Your task to perform on an android device: turn on airplane mode Image 0: 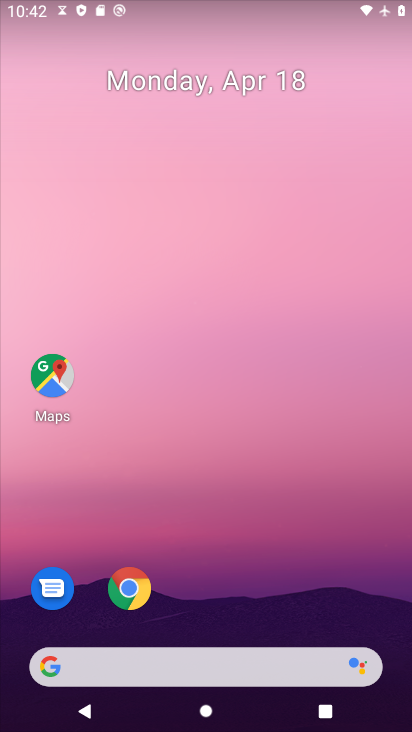
Step 0: drag from (318, 469) to (257, 27)
Your task to perform on an android device: turn on airplane mode Image 1: 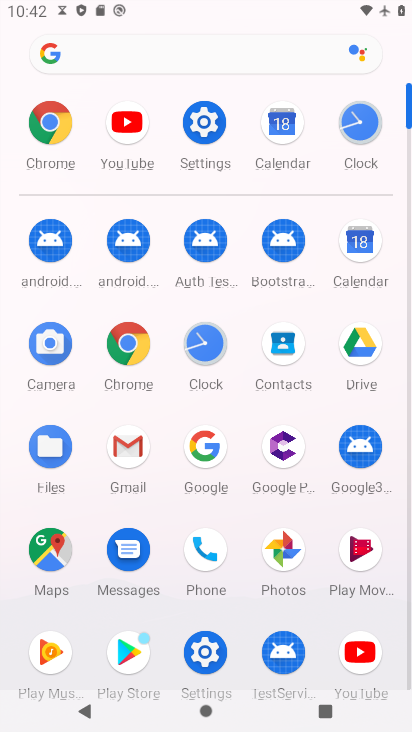
Step 1: click (205, 120)
Your task to perform on an android device: turn on airplane mode Image 2: 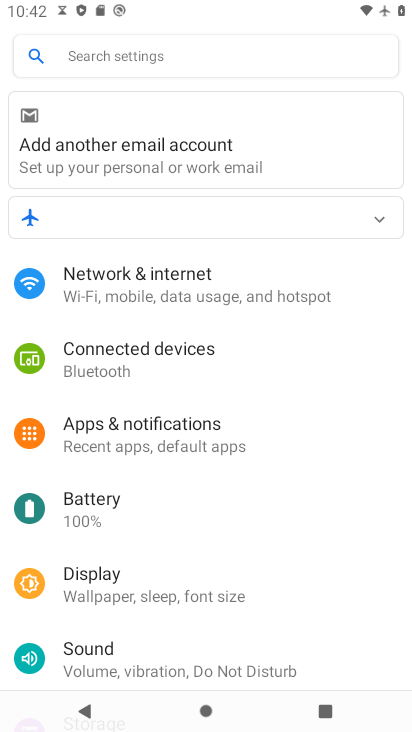
Step 2: click (237, 294)
Your task to perform on an android device: turn on airplane mode Image 3: 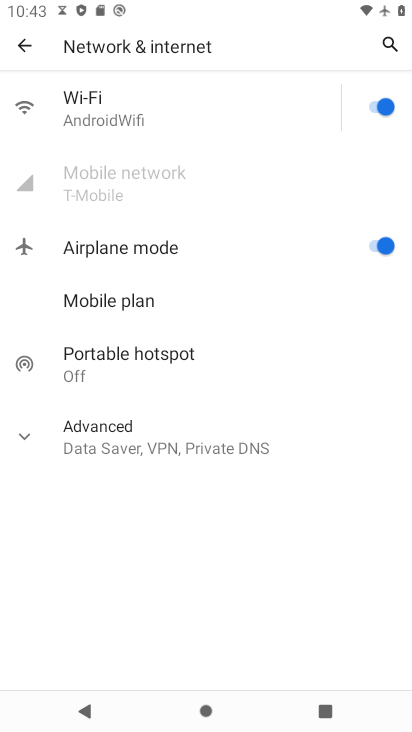
Step 3: task complete